Your task to perform on an android device: change the clock display to digital Image 0: 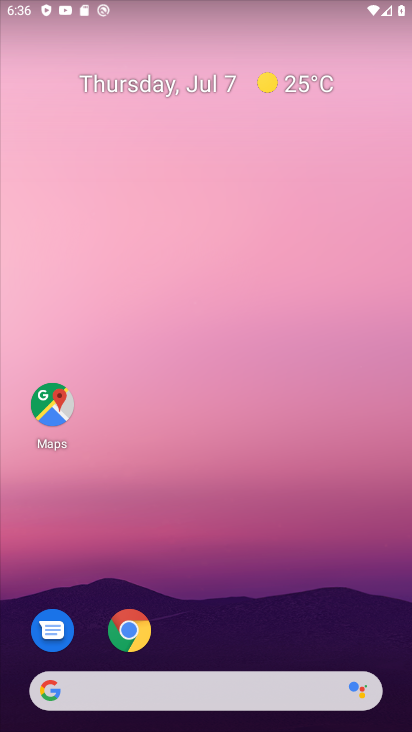
Step 0: drag from (254, 574) to (142, 15)
Your task to perform on an android device: change the clock display to digital Image 1: 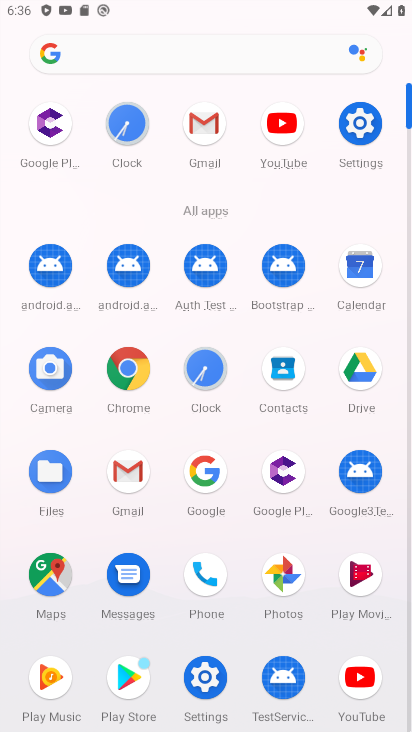
Step 1: click (124, 114)
Your task to perform on an android device: change the clock display to digital Image 2: 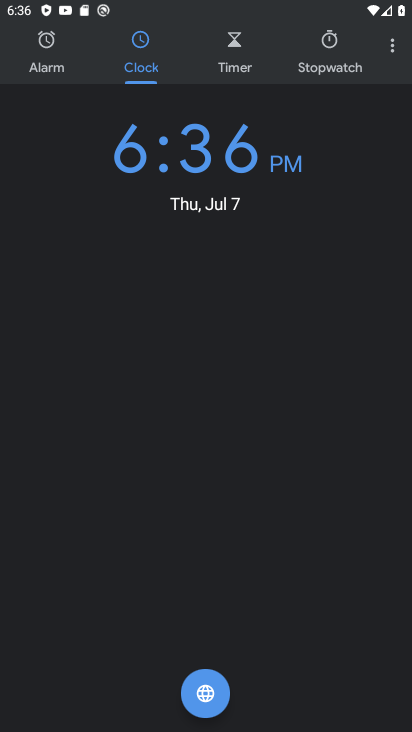
Step 2: click (391, 37)
Your task to perform on an android device: change the clock display to digital Image 3: 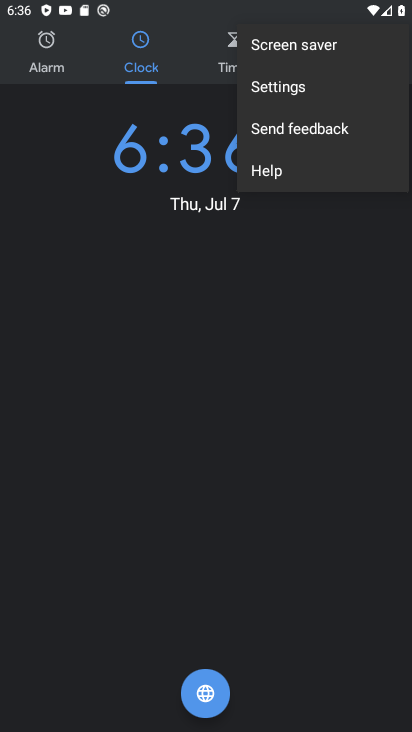
Step 3: click (272, 89)
Your task to perform on an android device: change the clock display to digital Image 4: 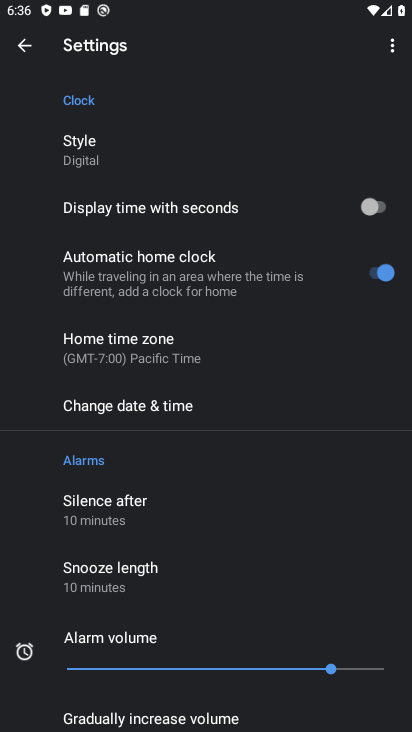
Step 4: task complete